Your task to perform on an android device: Search for vegetarian restaurants on Maps Image 0: 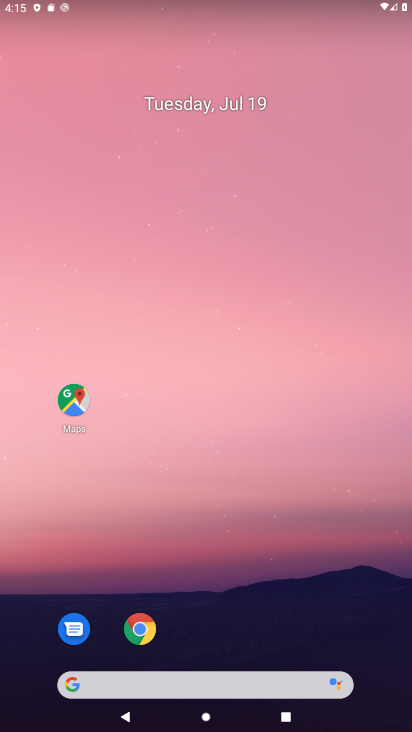
Step 0: click (76, 392)
Your task to perform on an android device: Search for vegetarian restaurants on Maps Image 1: 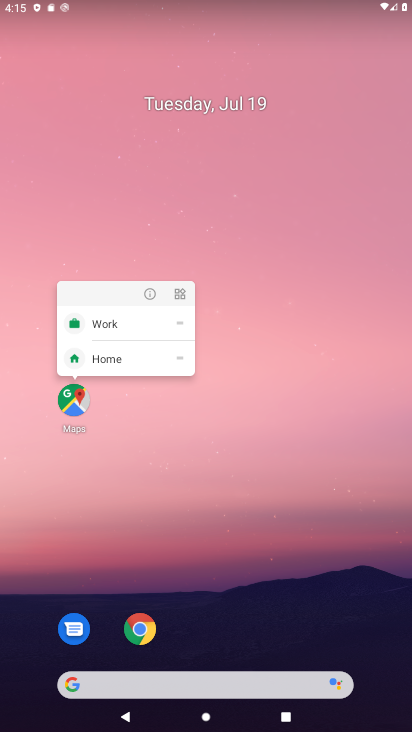
Step 1: click (69, 401)
Your task to perform on an android device: Search for vegetarian restaurants on Maps Image 2: 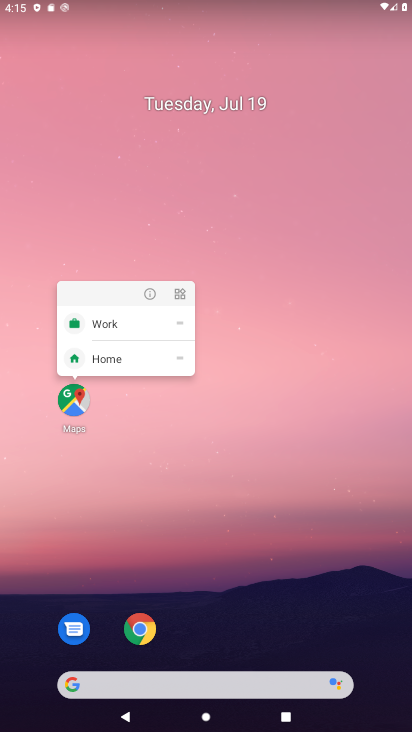
Step 2: click (70, 403)
Your task to perform on an android device: Search for vegetarian restaurants on Maps Image 3: 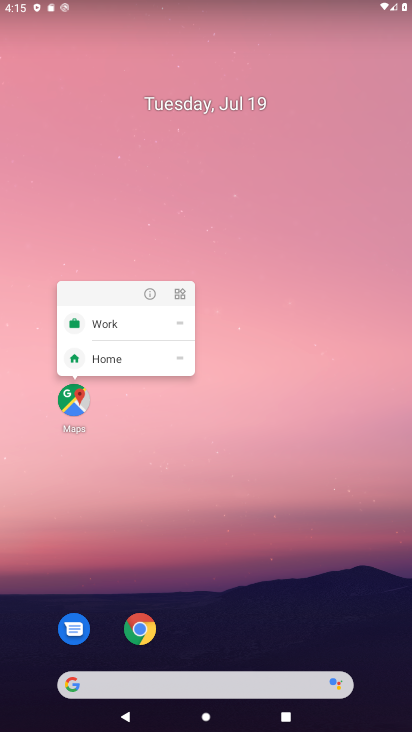
Step 3: click (79, 409)
Your task to perform on an android device: Search for vegetarian restaurants on Maps Image 4: 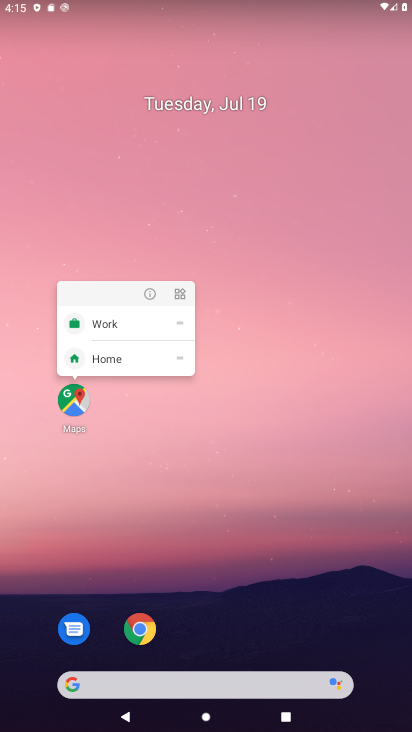
Step 4: click (79, 409)
Your task to perform on an android device: Search for vegetarian restaurants on Maps Image 5: 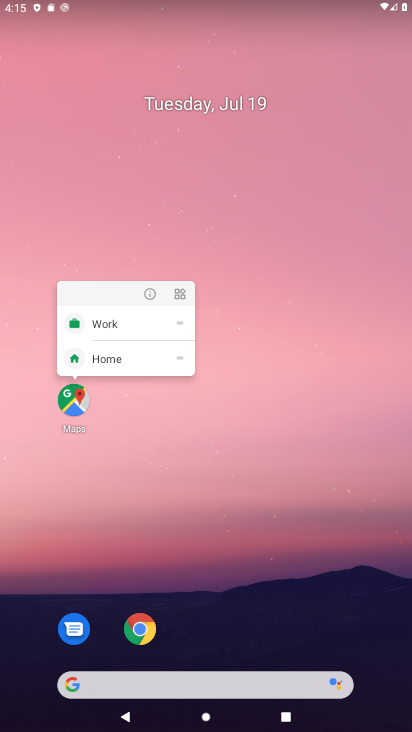
Step 5: click (74, 393)
Your task to perform on an android device: Search for vegetarian restaurants on Maps Image 6: 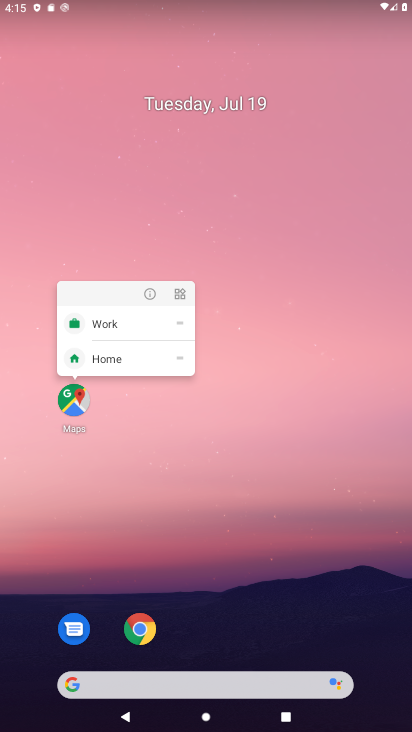
Step 6: click (65, 395)
Your task to perform on an android device: Search for vegetarian restaurants on Maps Image 7: 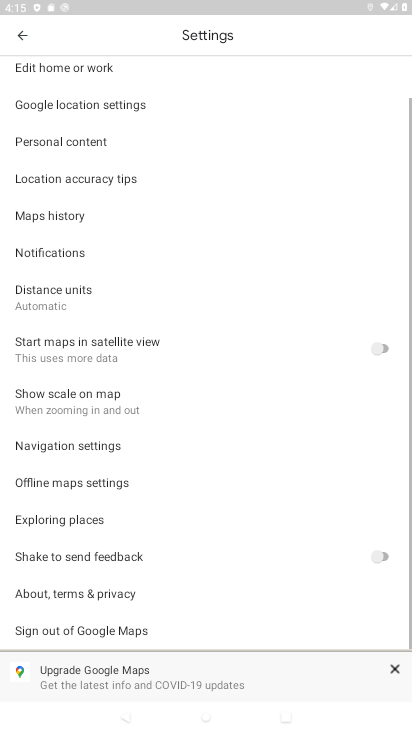
Step 7: click (26, 40)
Your task to perform on an android device: Search for vegetarian restaurants on Maps Image 8: 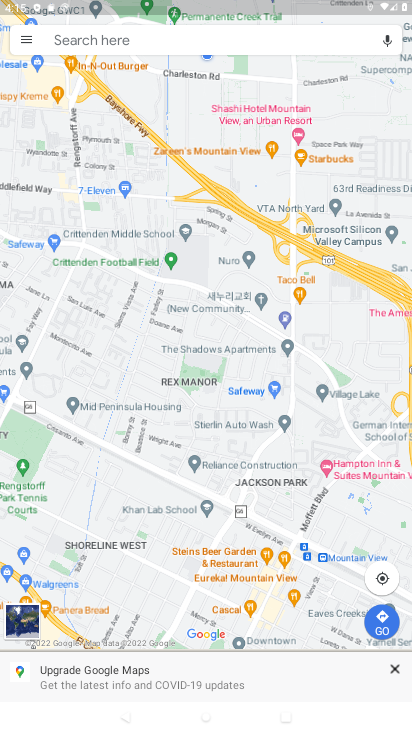
Step 8: click (118, 38)
Your task to perform on an android device: Search for vegetarian restaurants on Maps Image 9: 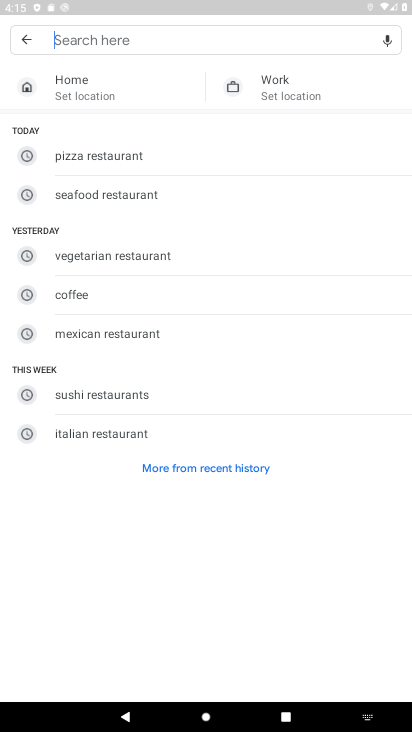
Step 9: click (86, 252)
Your task to perform on an android device: Search for vegetarian restaurants on Maps Image 10: 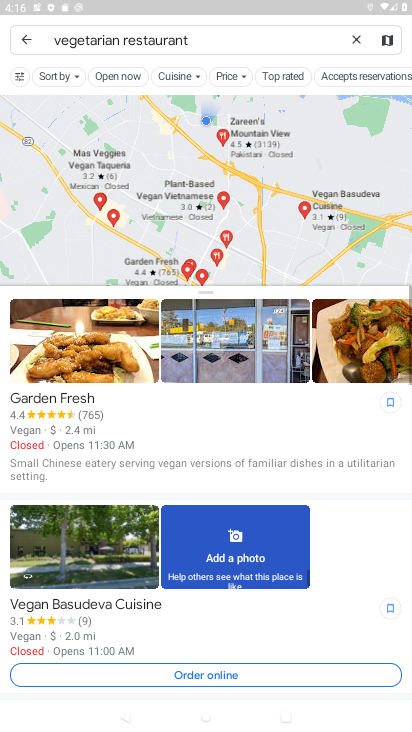
Step 10: task complete